Your task to perform on an android device: check google app version Image 0: 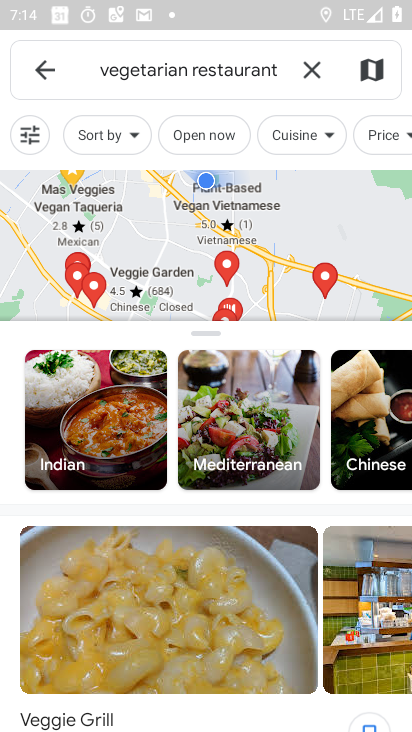
Step 0: press home button
Your task to perform on an android device: check google app version Image 1: 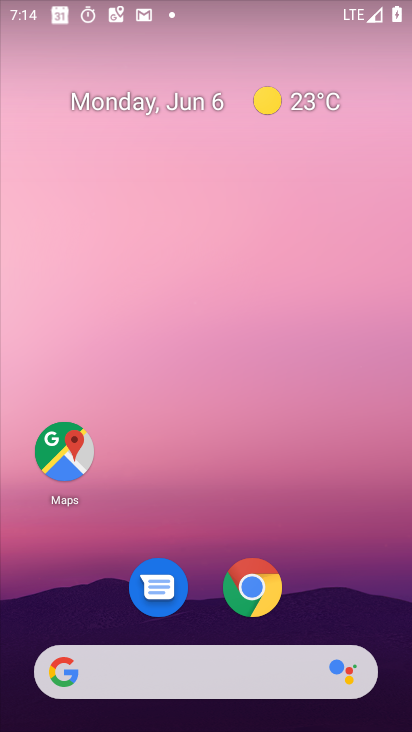
Step 1: drag from (386, 655) to (241, 54)
Your task to perform on an android device: check google app version Image 2: 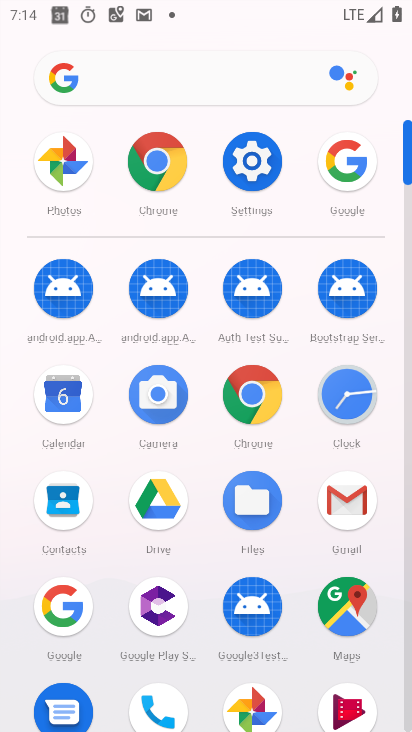
Step 2: click (84, 615)
Your task to perform on an android device: check google app version Image 3: 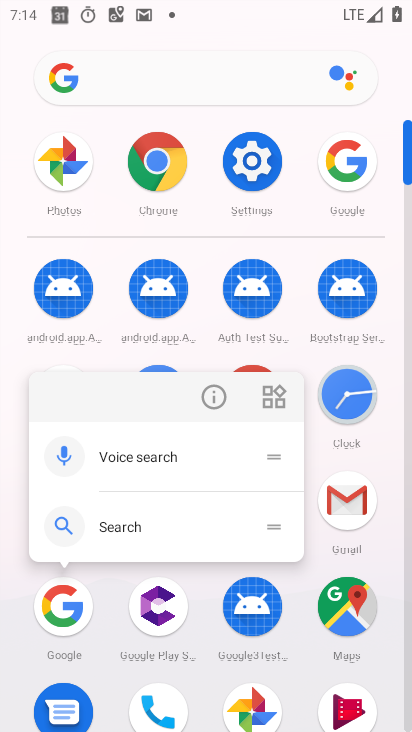
Step 3: click (209, 403)
Your task to perform on an android device: check google app version Image 4: 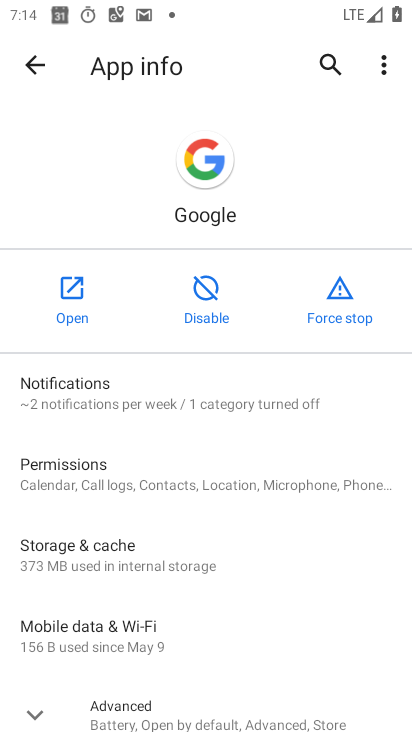
Step 4: drag from (61, 691) to (109, 122)
Your task to perform on an android device: check google app version Image 5: 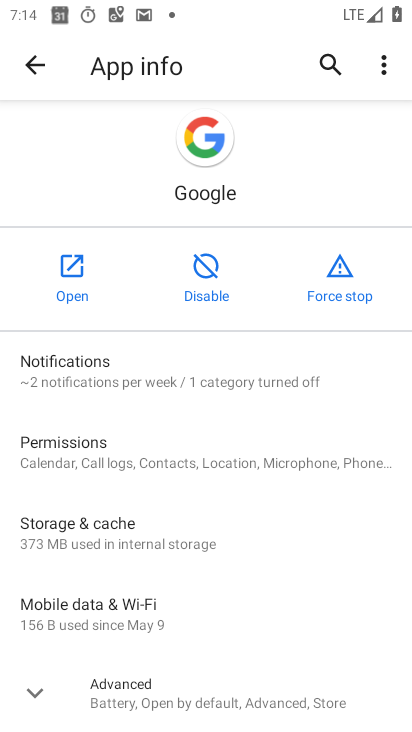
Step 5: click (46, 691)
Your task to perform on an android device: check google app version Image 6: 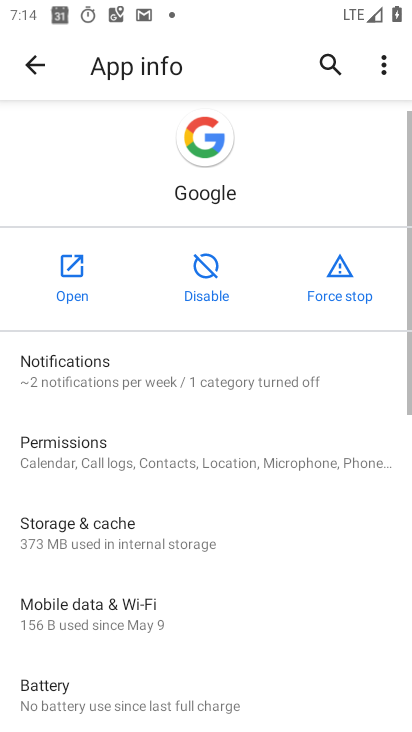
Step 6: task complete